Your task to perform on an android device: open a bookmark in the chrome app Image 0: 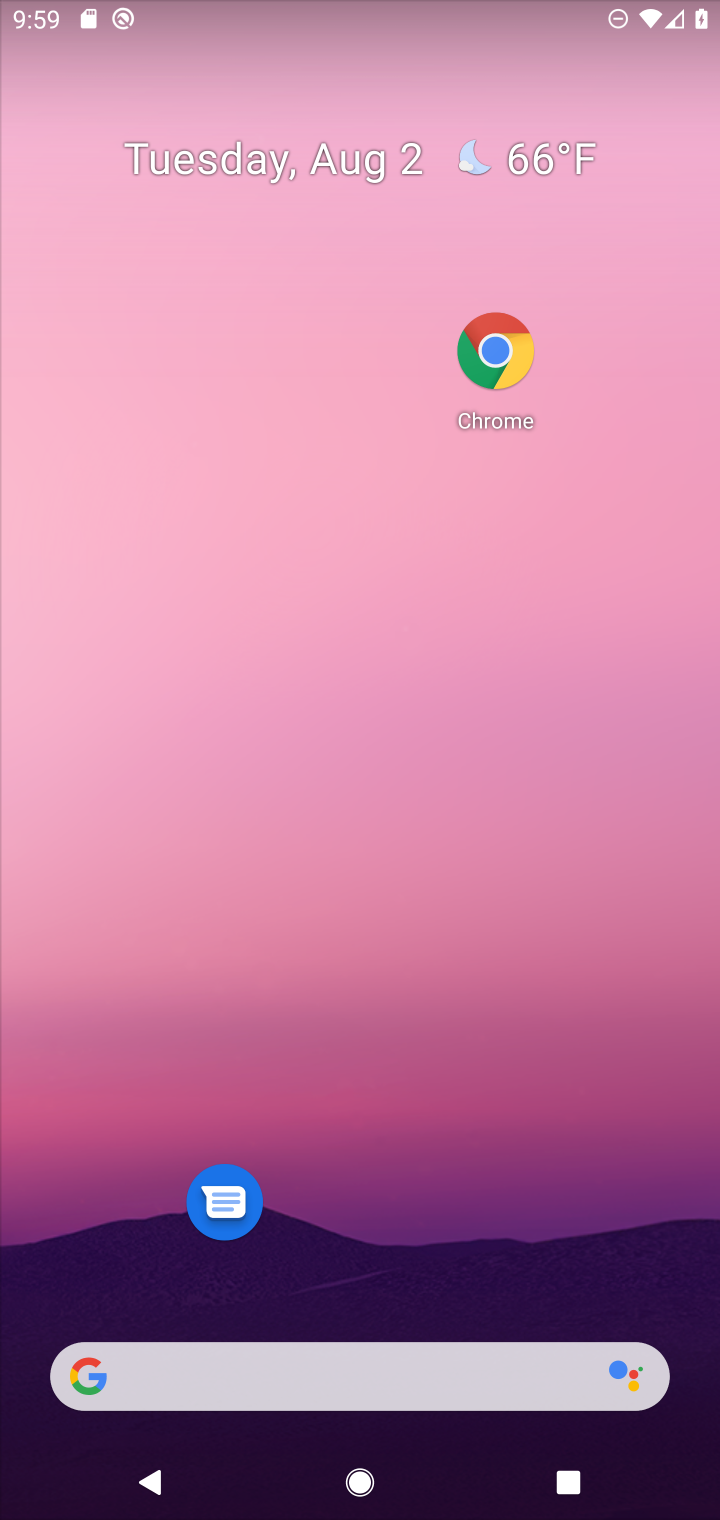
Step 0: click (493, 362)
Your task to perform on an android device: open a bookmark in the chrome app Image 1: 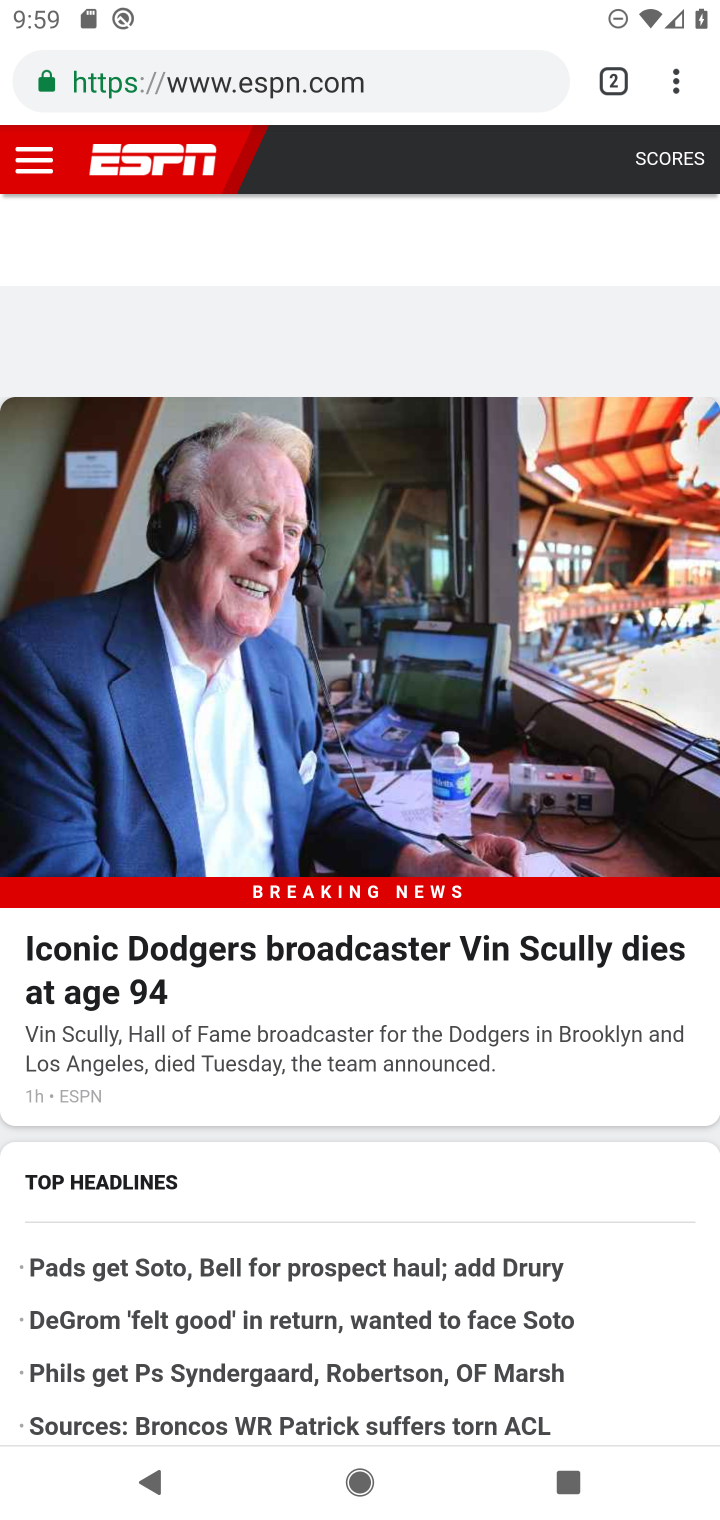
Step 1: click (679, 86)
Your task to perform on an android device: open a bookmark in the chrome app Image 2: 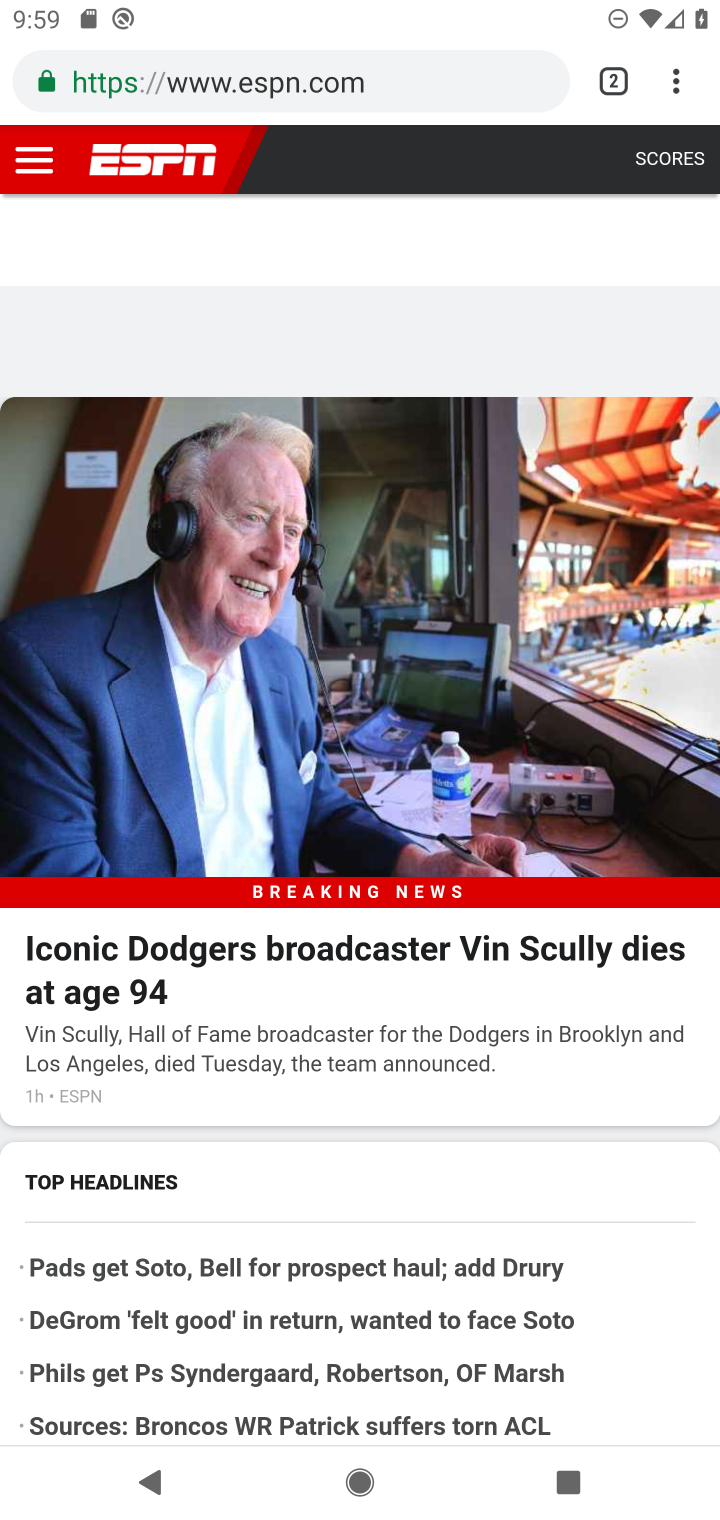
Step 2: drag from (679, 86) to (381, 330)
Your task to perform on an android device: open a bookmark in the chrome app Image 3: 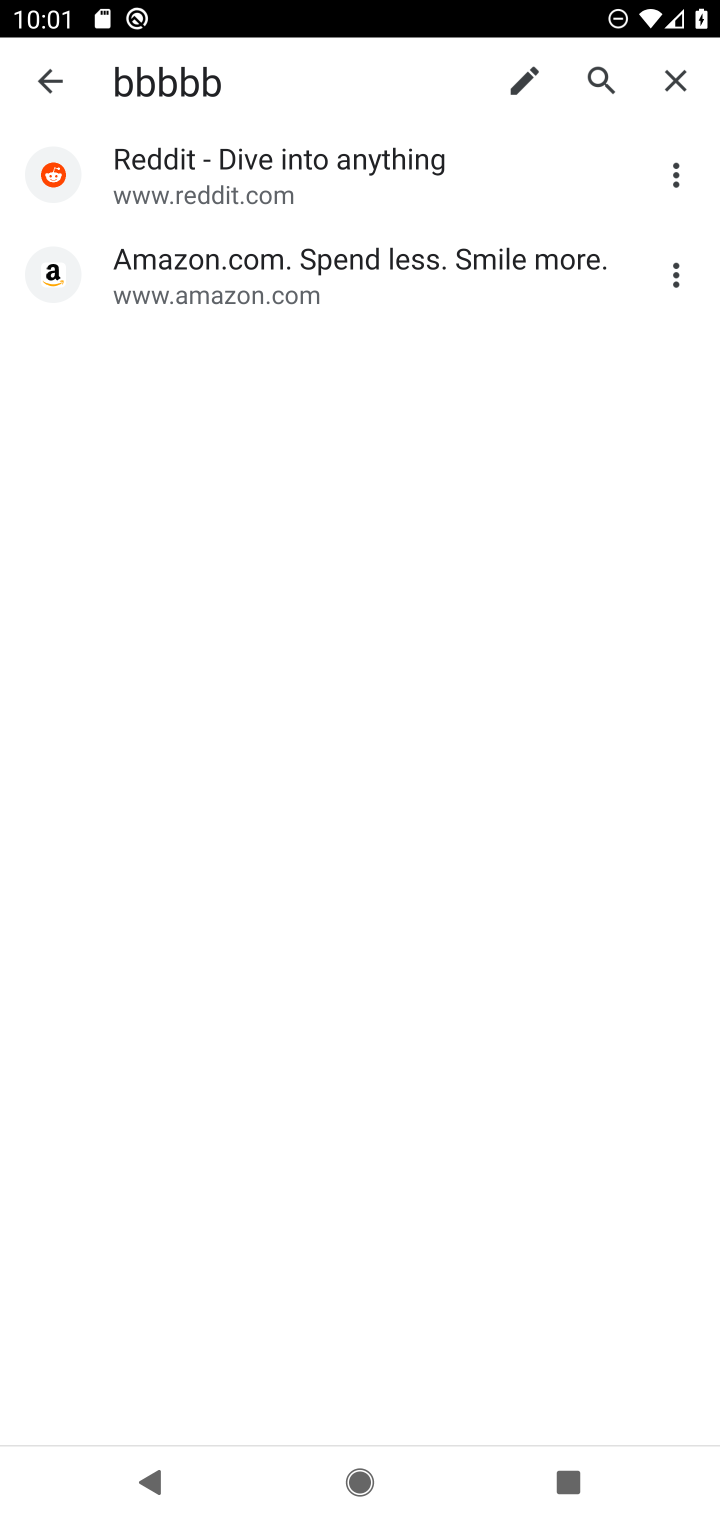
Step 3: click (370, 260)
Your task to perform on an android device: open a bookmark in the chrome app Image 4: 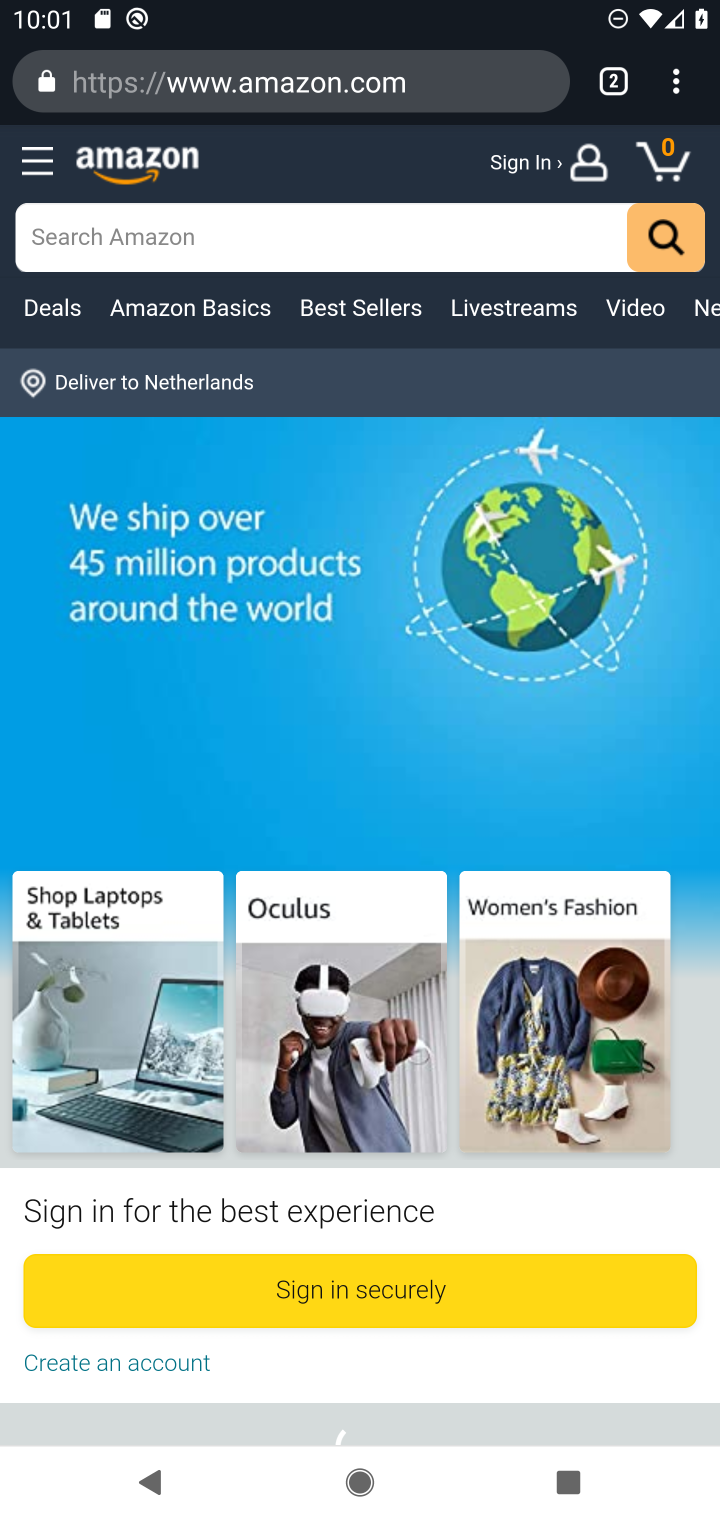
Step 4: task complete